Your task to perform on an android device: Open Google Chrome and open the bookmarks view Image 0: 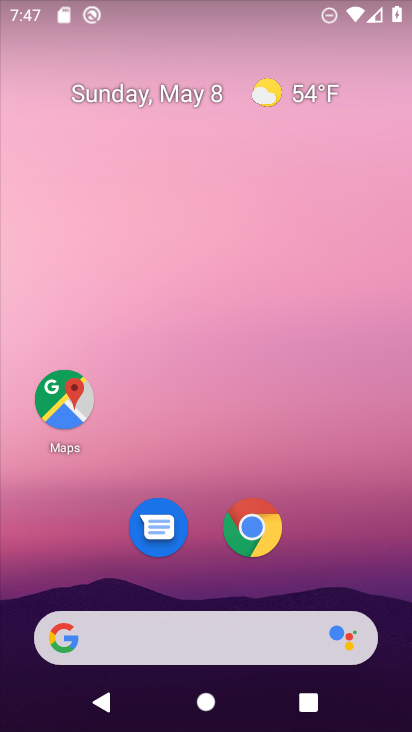
Step 0: click (248, 523)
Your task to perform on an android device: Open Google Chrome and open the bookmarks view Image 1: 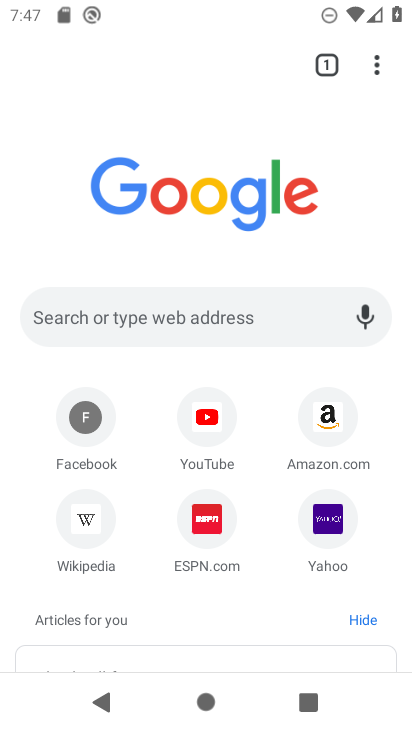
Step 1: task complete